Your task to perform on an android device: change timer sound Image 0: 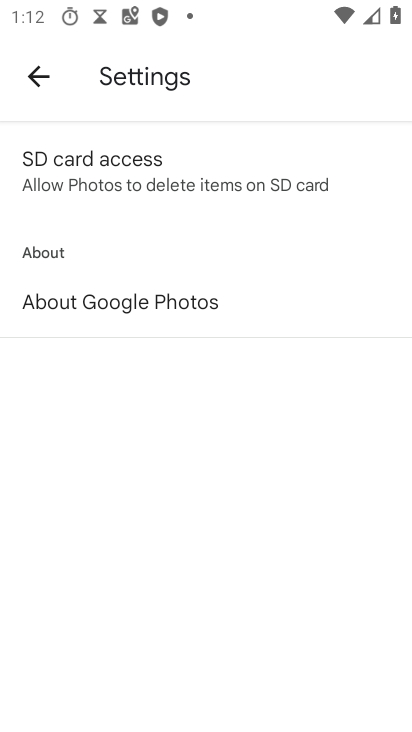
Step 0: press home button
Your task to perform on an android device: change timer sound Image 1: 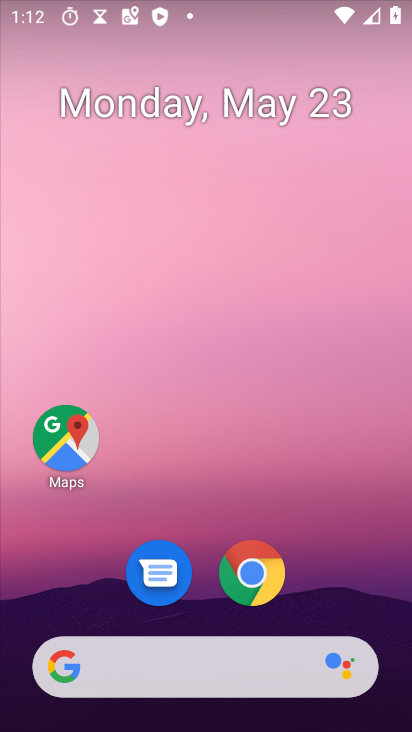
Step 1: drag from (178, 666) to (344, 103)
Your task to perform on an android device: change timer sound Image 2: 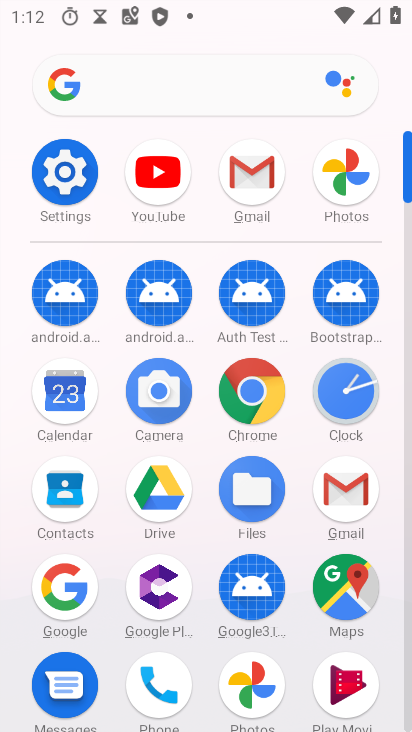
Step 2: click (347, 399)
Your task to perform on an android device: change timer sound Image 3: 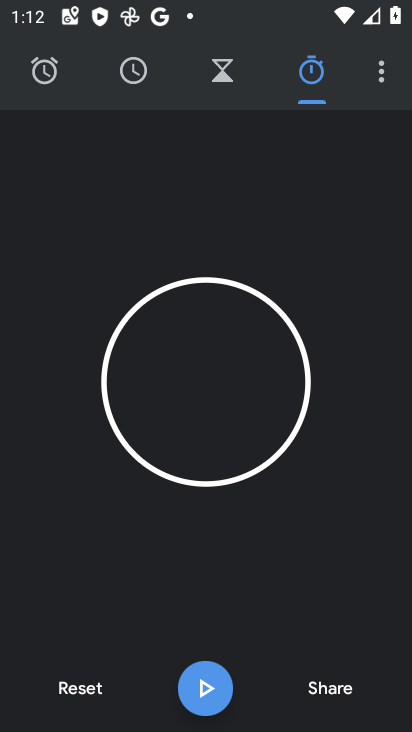
Step 3: click (386, 81)
Your task to perform on an android device: change timer sound Image 4: 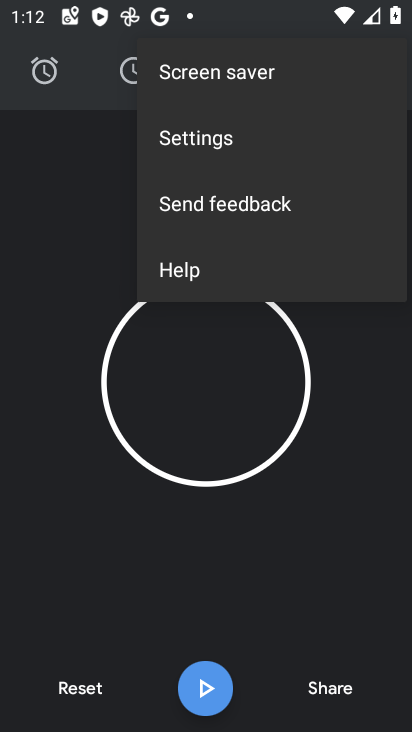
Step 4: click (178, 140)
Your task to perform on an android device: change timer sound Image 5: 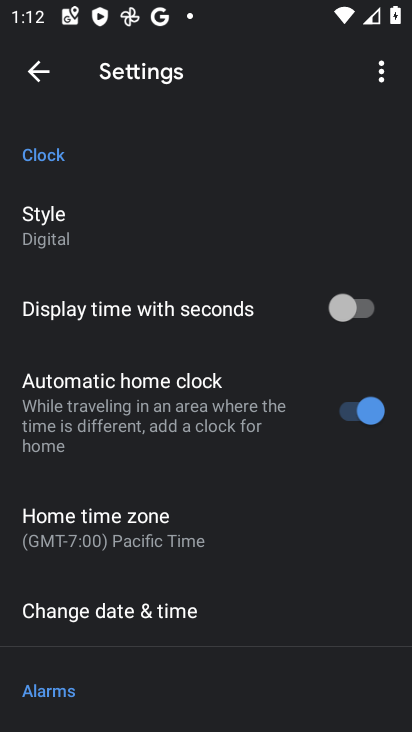
Step 5: drag from (241, 594) to (337, 142)
Your task to perform on an android device: change timer sound Image 6: 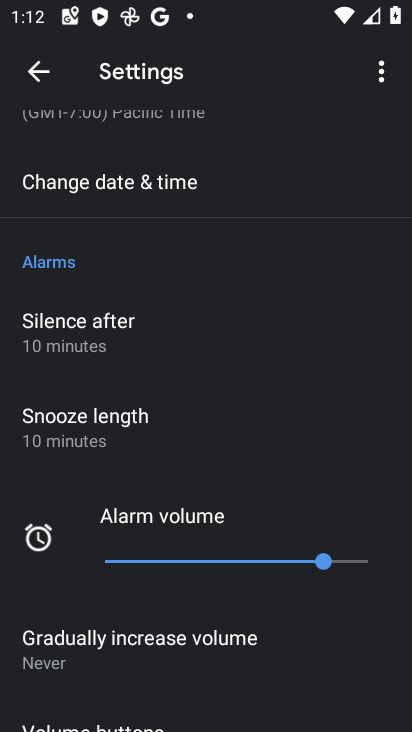
Step 6: drag from (293, 483) to (380, 118)
Your task to perform on an android device: change timer sound Image 7: 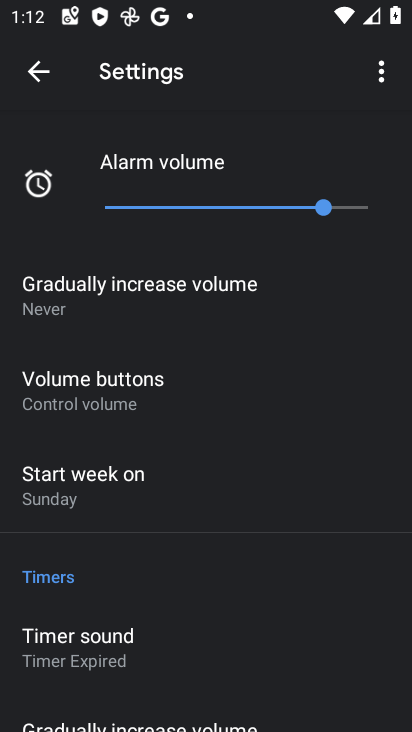
Step 7: click (116, 642)
Your task to perform on an android device: change timer sound Image 8: 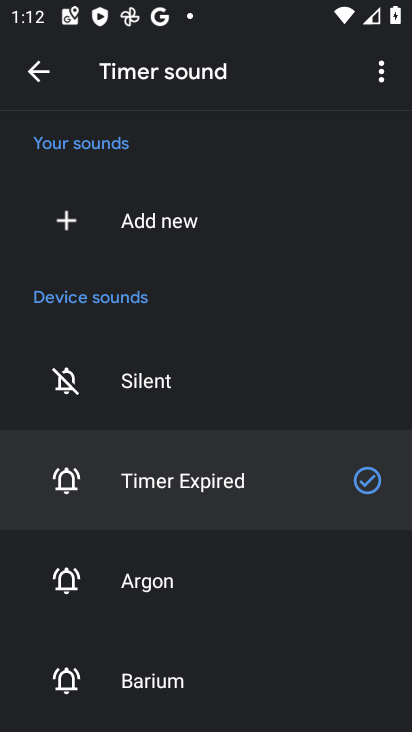
Step 8: click (153, 589)
Your task to perform on an android device: change timer sound Image 9: 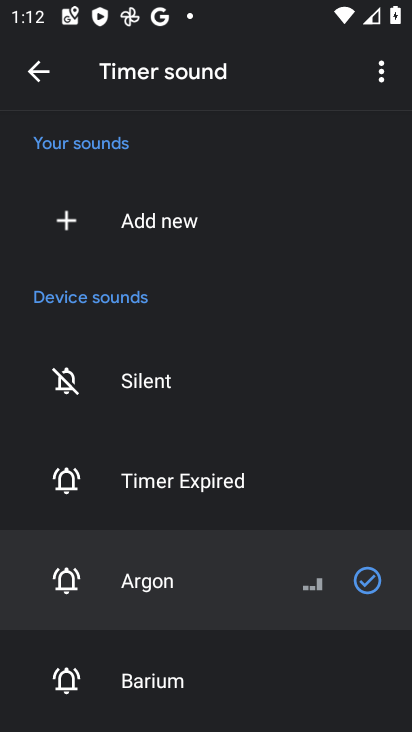
Step 9: task complete